Your task to perform on an android device: Is it going to rain today? Image 0: 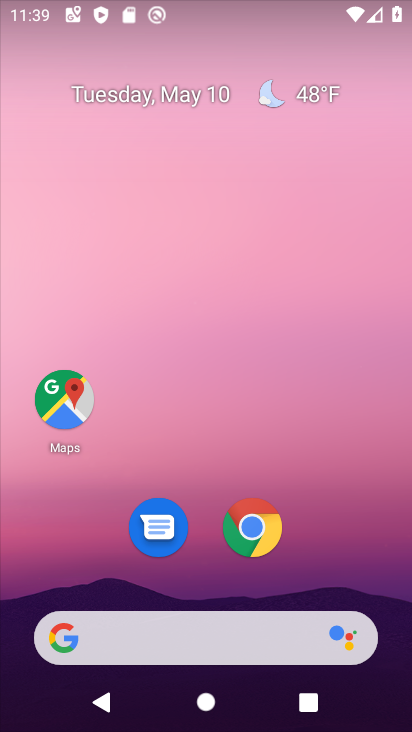
Step 0: click (271, 85)
Your task to perform on an android device: Is it going to rain today? Image 1: 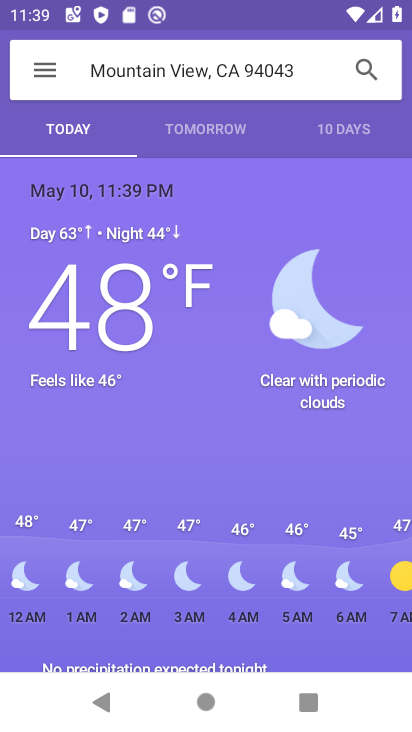
Step 1: task complete